Your task to perform on an android device: open a new tab in the chrome app Image 0: 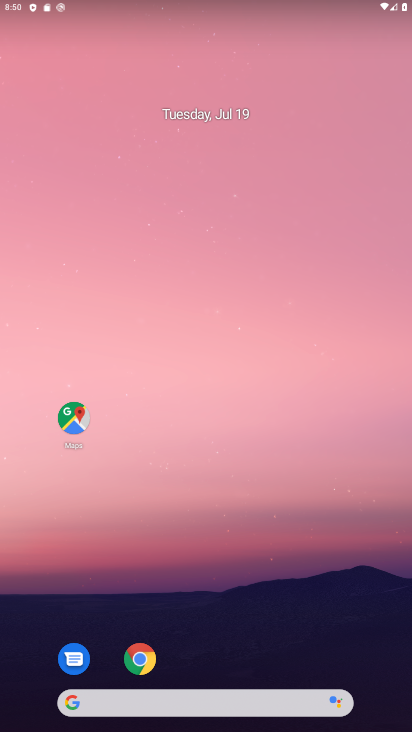
Step 0: drag from (196, 664) to (277, 98)
Your task to perform on an android device: open a new tab in the chrome app Image 1: 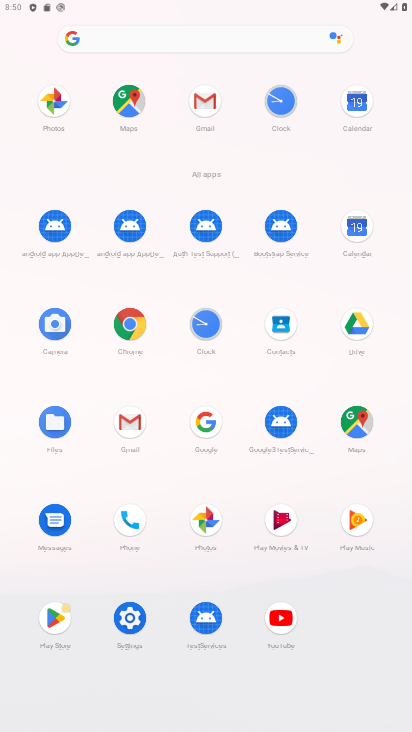
Step 1: click (125, 323)
Your task to perform on an android device: open a new tab in the chrome app Image 2: 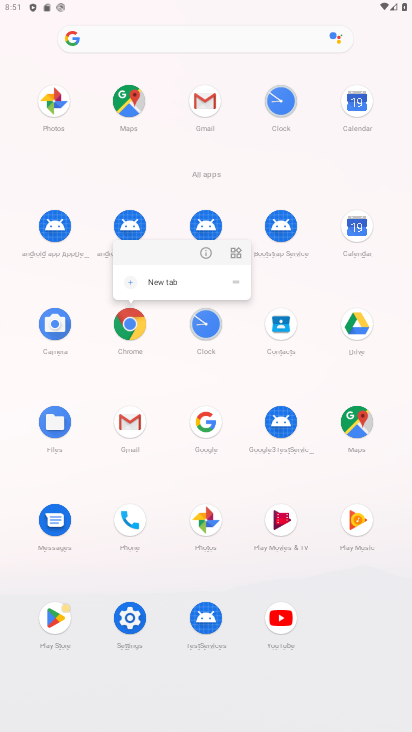
Step 2: click (203, 248)
Your task to perform on an android device: open a new tab in the chrome app Image 3: 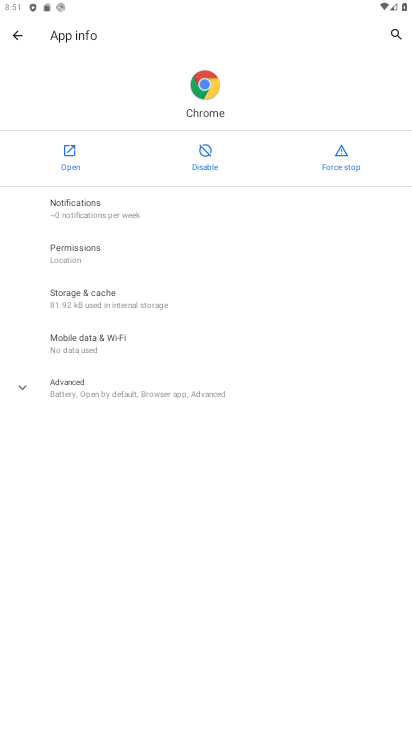
Step 3: click (75, 165)
Your task to perform on an android device: open a new tab in the chrome app Image 4: 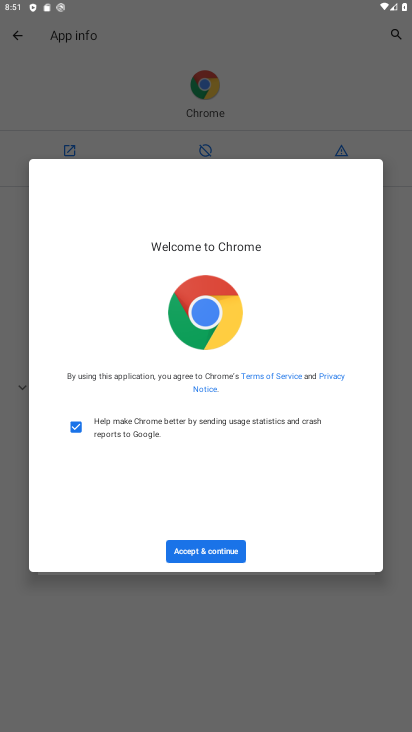
Step 4: click (208, 553)
Your task to perform on an android device: open a new tab in the chrome app Image 5: 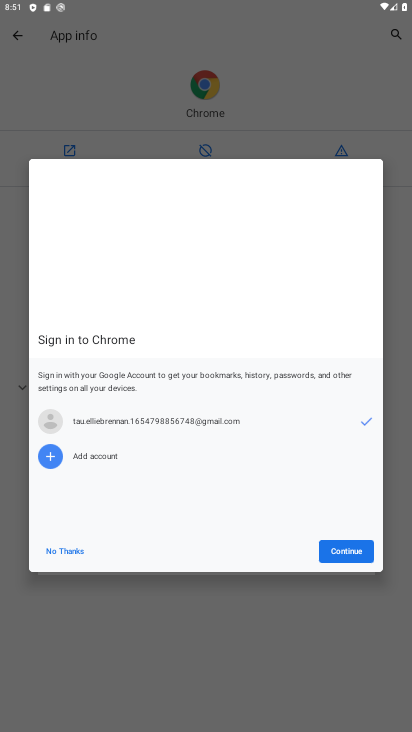
Step 5: click (338, 543)
Your task to perform on an android device: open a new tab in the chrome app Image 6: 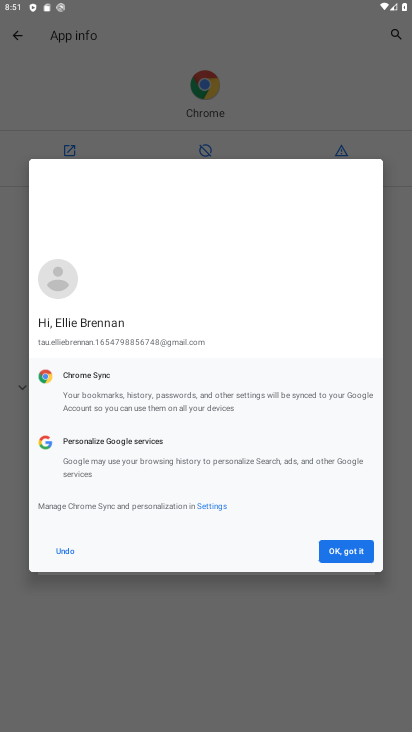
Step 6: click (329, 545)
Your task to perform on an android device: open a new tab in the chrome app Image 7: 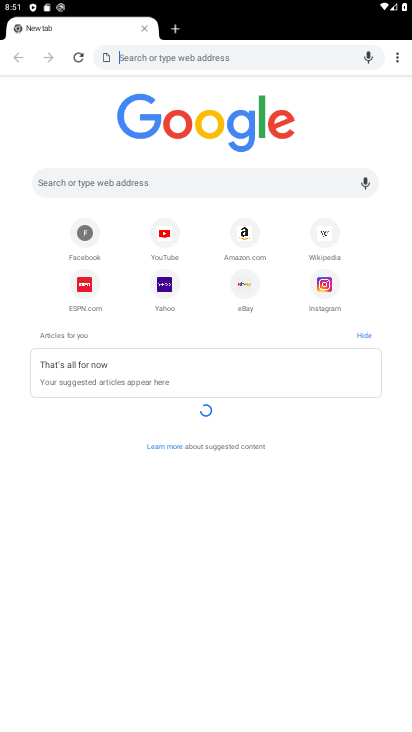
Step 7: task complete